Your task to perform on an android device: turn on the 12-hour format for clock Image 0: 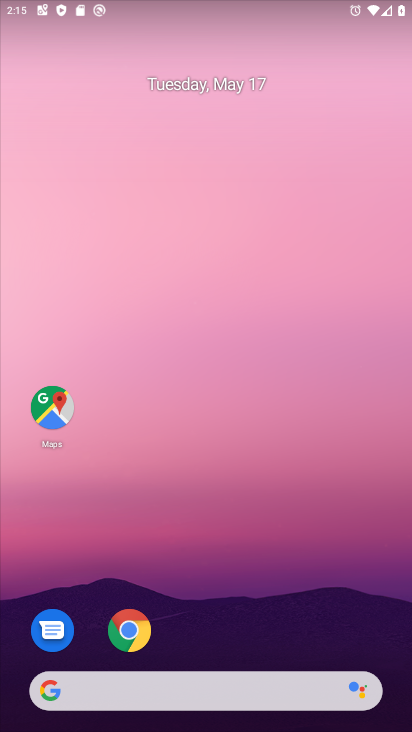
Step 0: drag from (357, 556) to (286, 180)
Your task to perform on an android device: turn on the 12-hour format for clock Image 1: 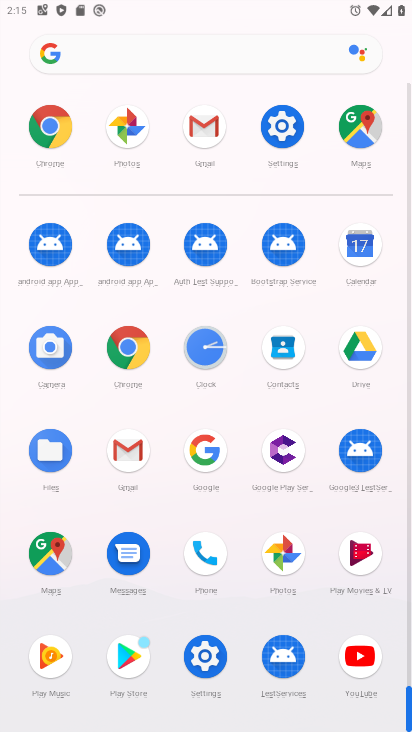
Step 1: click (200, 668)
Your task to perform on an android device: turn on the 12-hour format for clock Image 2: 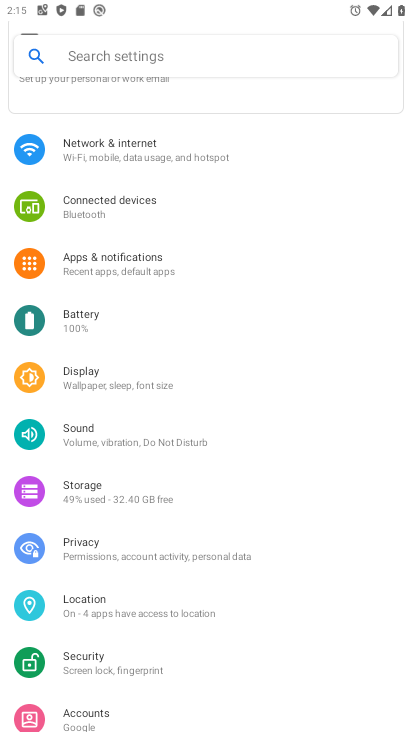
Step 2: press home button
Your task to perform on an android device: turn on the 12-hour format for clock Image 3: 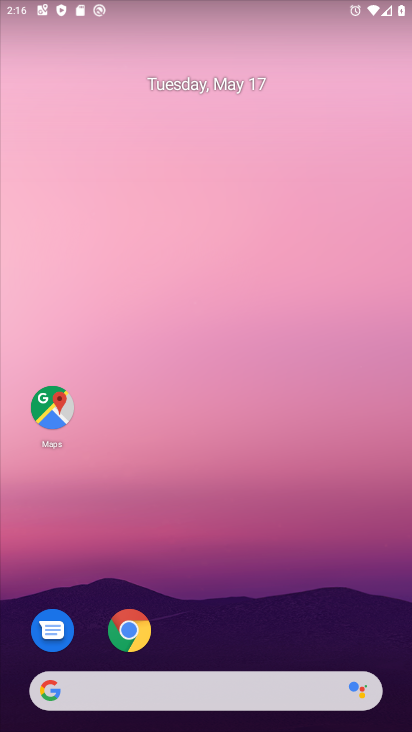
Step 3: drag from (296, 620) to (257, 4)
Your task to perform on an android device: turn on the 12-hour format for clock Image 4: 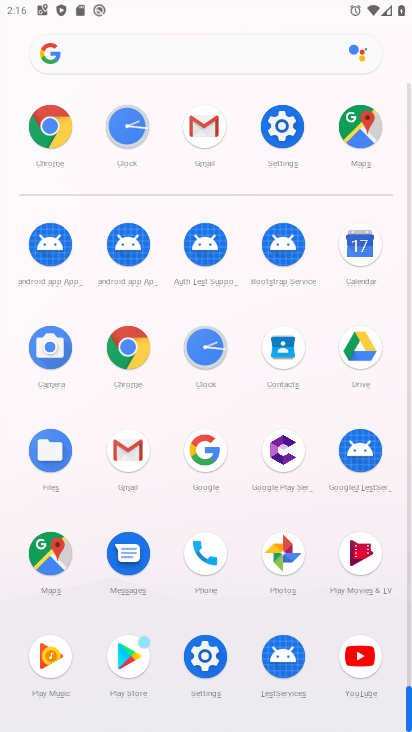
Step 4: click (199, 348)
Your task to perform on an android device: turn on the 12-hour format for clock Image 5: 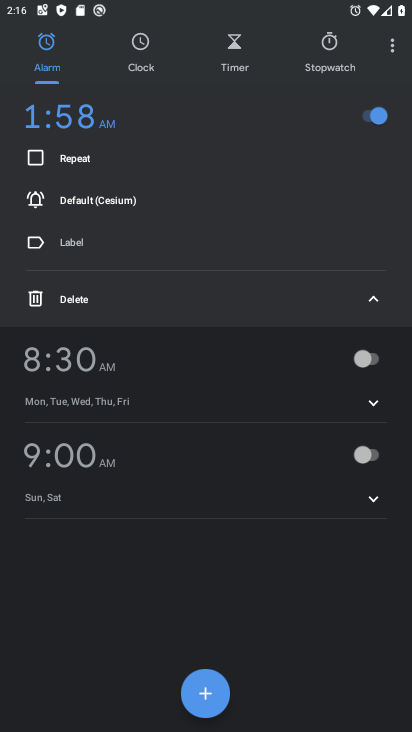
Step 5: click (393, 55)
Your task to perform on an android device: turn on the 12-hour format for clock Image 6: 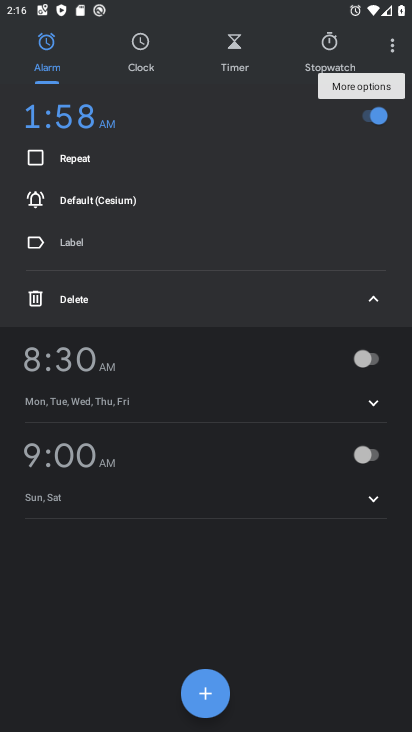
Step 6: click (398, 52)
Your task to perform on an android device: turn on the 12-hour format for clock Image 7: 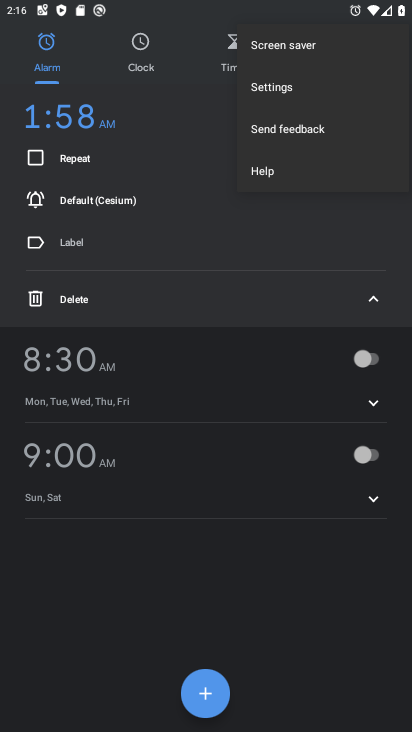
Step 7: click (338, 92)
Your task to perform on an android device: turn on the 12-hour format for clock Image 8: 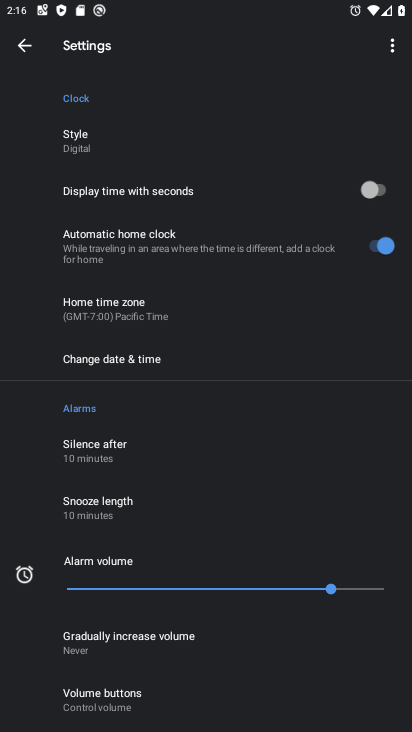
Step 8: click (203, 366)
Your task to perform on an android device: turn on the 12-hour format for clock Image 9: 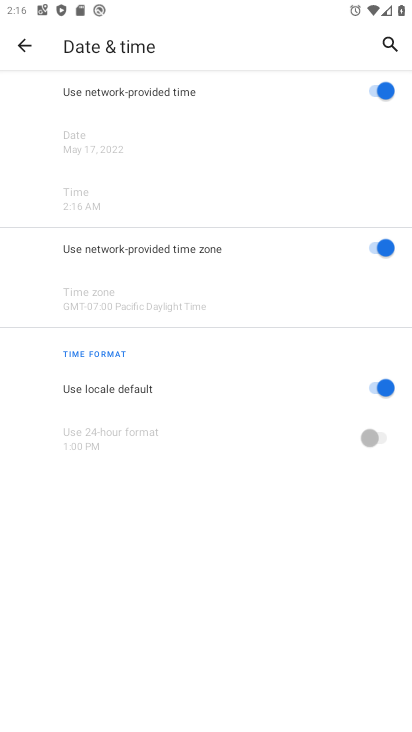
Step 9: task complete